Your task to perform on an android device: turn off notifications in google photos Image 0: 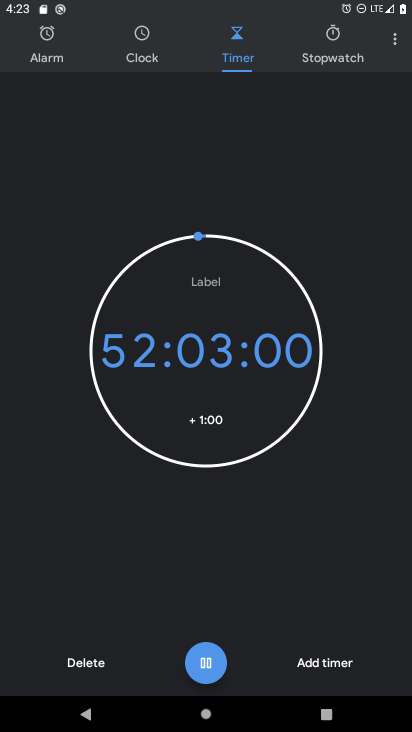
Step 0: press home button
Your task to perform on an android device: turn off notifications in google photos Image 1: 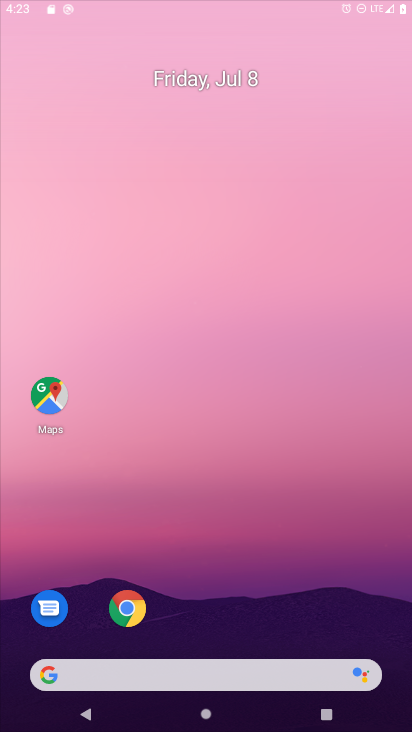
Step 1: drag from (295, 677) to (312, 6)
Your task to perform on an android device: turn off notifications in google photos Image 2: 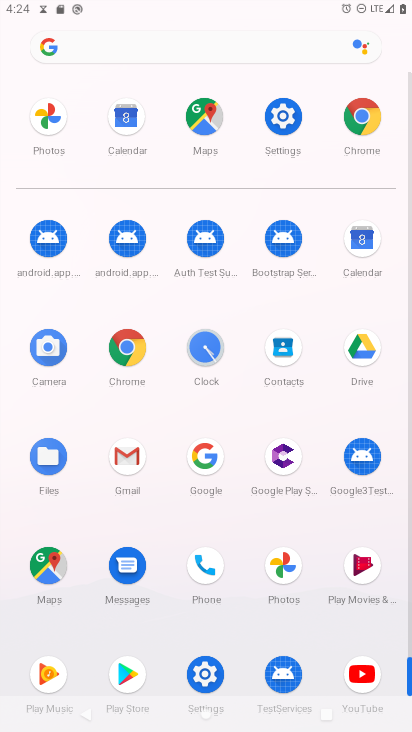
Step 2: click (287, 583)
Your task to perform on an android device: turn off notifications in google photos Image 3: 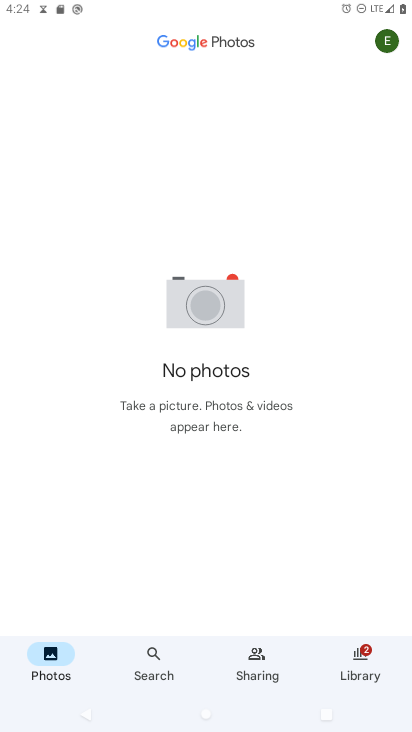
Step 3: click (383, 42)
Your task to perform on an android device: turn off notifications in google photos Image 4: 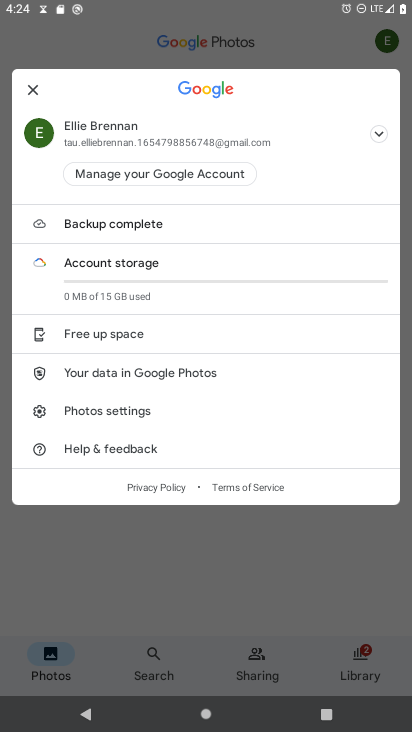
Step 4: click (387, 41)
Your task to perform on an android device: turn off notifications in google photos Image 5: 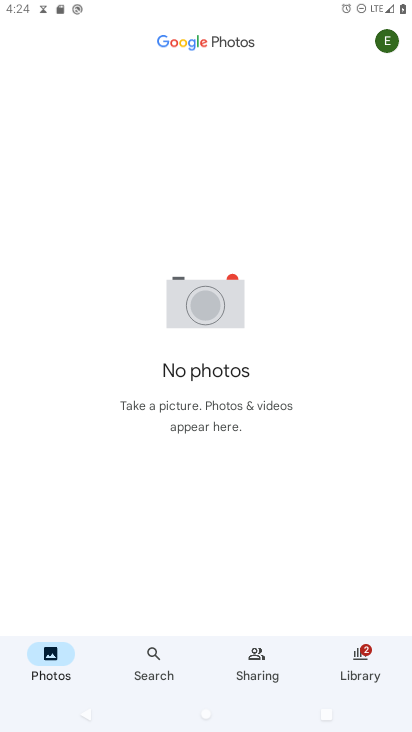
Step 5: click (389, 37)
Your task to perform on an android device: turn off notifications in google photos Image 6: 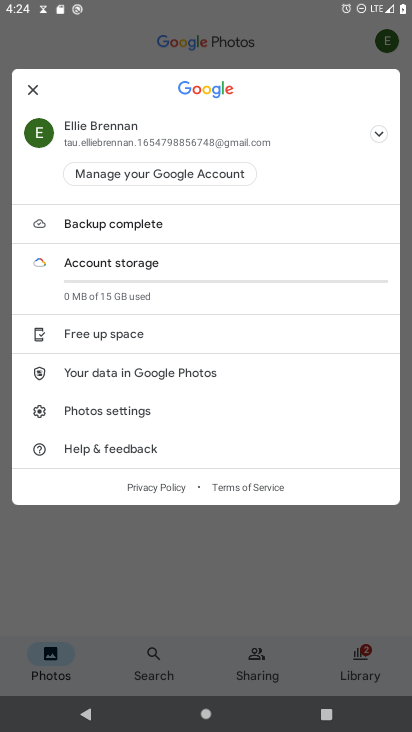
Step 6: click (152, 418)
Your task to perform on an android device: turn off notifications in google photos Image 7: 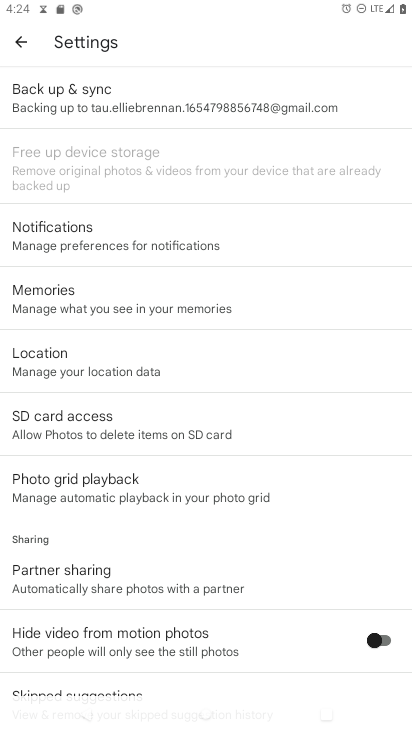
Step 7: click (96, 236)
Your task to perform on an android device: turn off notifications in google photos Image 8: 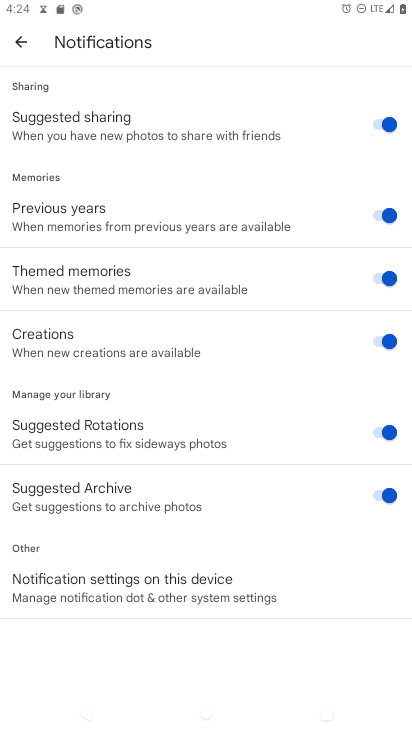
Step 8: click (222, 579)
Your task to perform on an android device: turn off notifications in google photos Image 9: 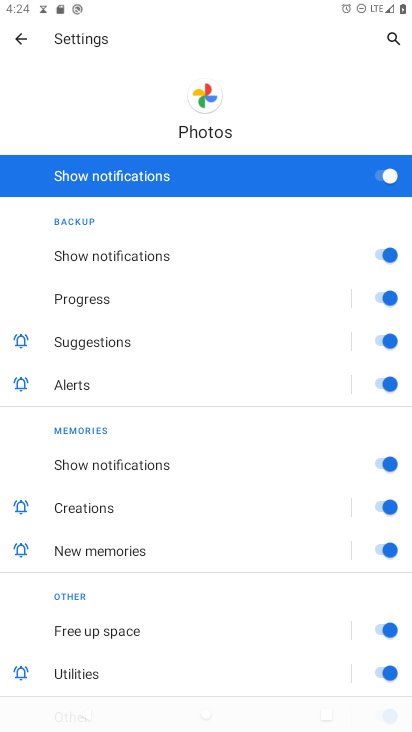
Step 9: drag from (222, 579) to (221, 179)
Your task to perform on an android device: turn off notifications in google photos Image 10: 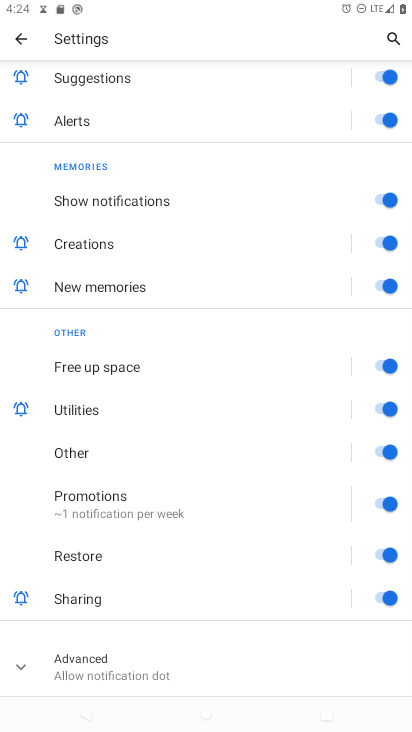
Step 10: drag from (215, 286) to (234, 695)
Your task to perform on an android device: turn off notifications in google photos Image 11: 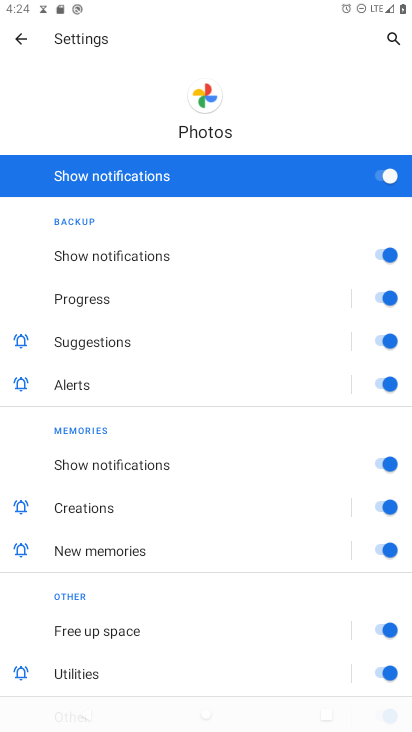
Step 11: click (377, 177)
Your task to perform on an android device: turn off notifications in google photos Image 12: 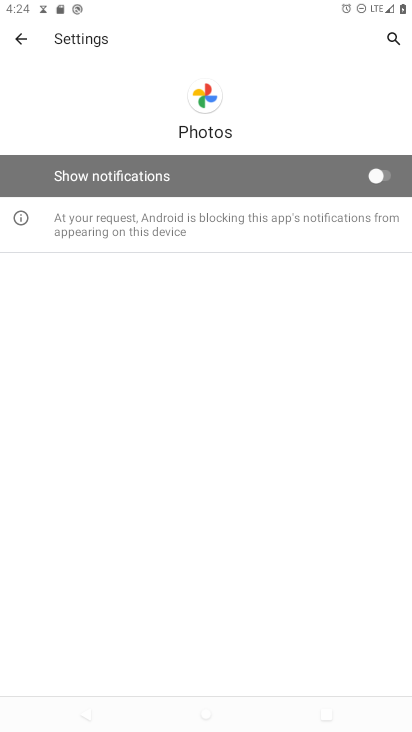
Step 12: task complete